Your task to perform on an android device: Go to Android settings Image 0: 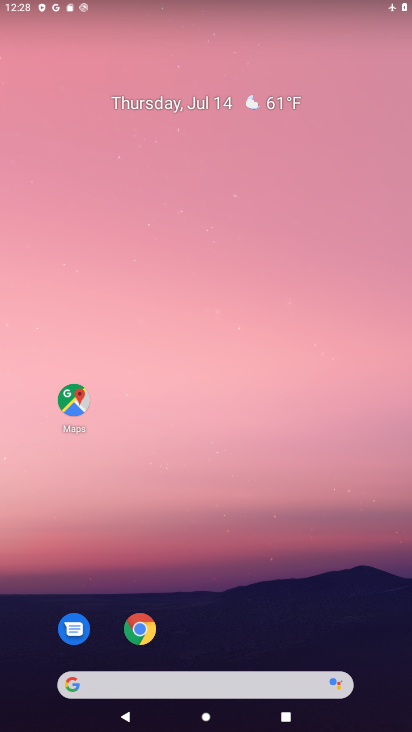
Step 0: drag from (201, 634) to (224, 19)
Your task to perform on an android device: Go to Android settings Image 1: 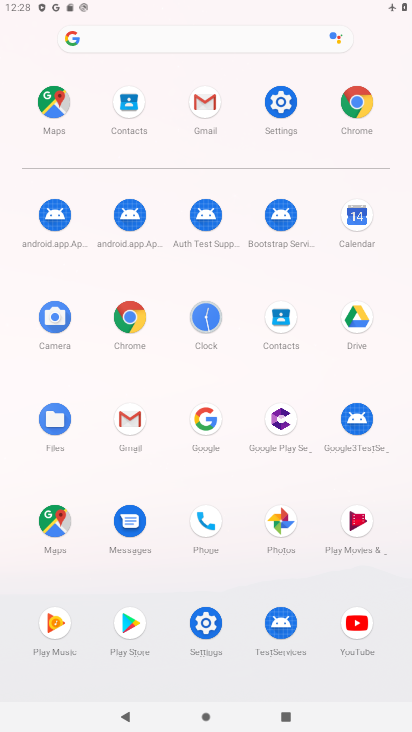
Step 1: click (279, 98)
Your task to perform on an android device: Go to Android settings Image 2: 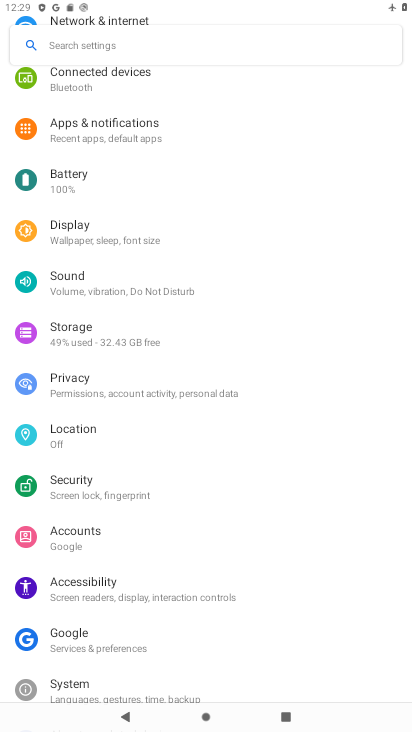
Step 2: task complete